Your task to perform on an android device: snooze an email in the gmail app Image 0: 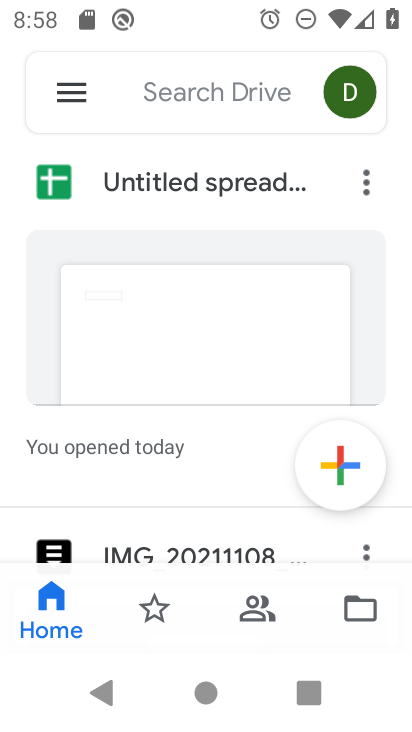
Step 0: press home button
Your task to perform on an android device: snooze an email in the gmail app Image 1: 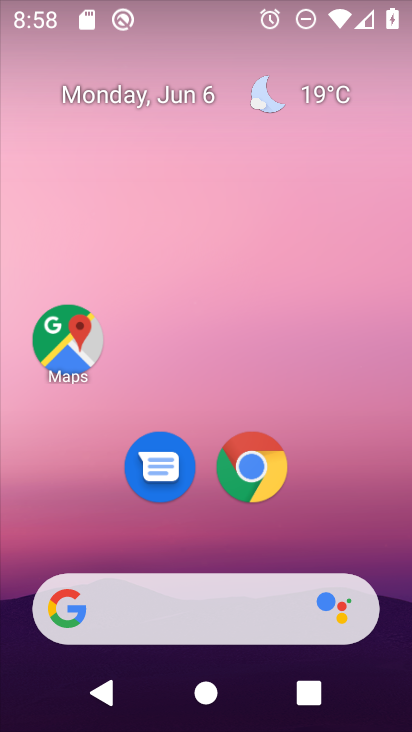
Step 1: drag from (374, 523) to (371, 137)
Your task to perform on an android device: snooze an email in the gmail app Image 2: 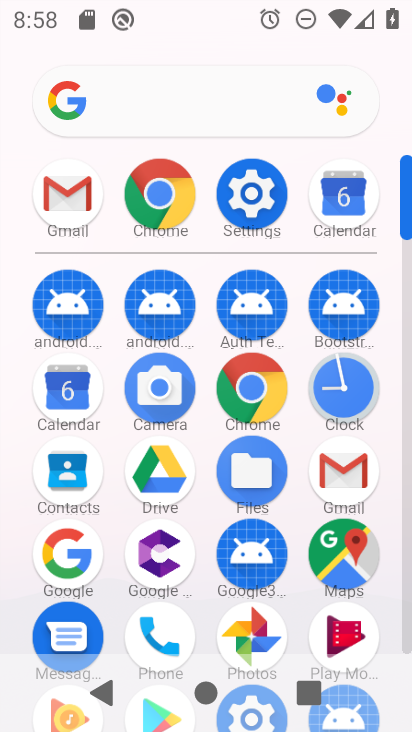
Step 2: click (356, 468)
Your task to perform on an android device: snooze an email in the gmail app Image 3: 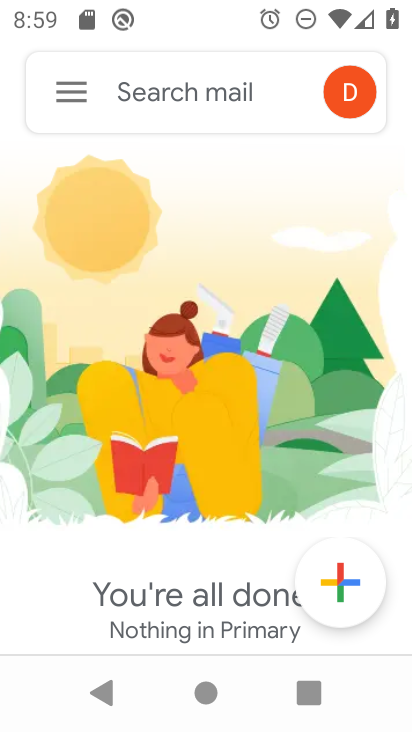
Step 3: click (76, 95)
Your task to perform on an android device: snooze an email in the gmail app Image 4: 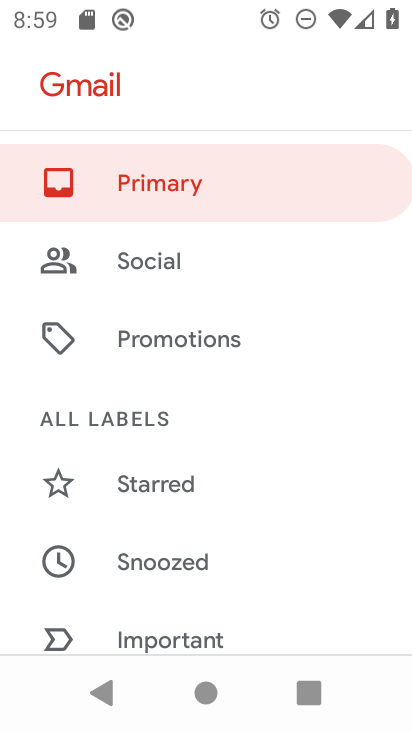
Step 4: drag from (344, 550) to (345, 368)
Your task to perform on an android device: snooze an email in the gmail app Image 5: 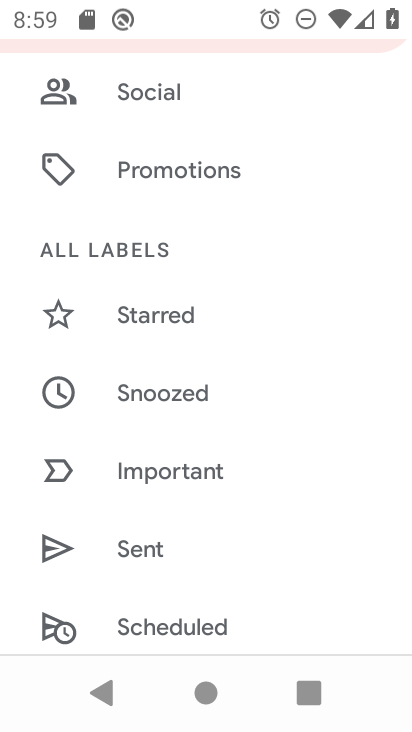
Step 5: drag from (340, 473) to (337, 321)
Your task to perform on an android device: snooze an email in the gmail app Image 6: 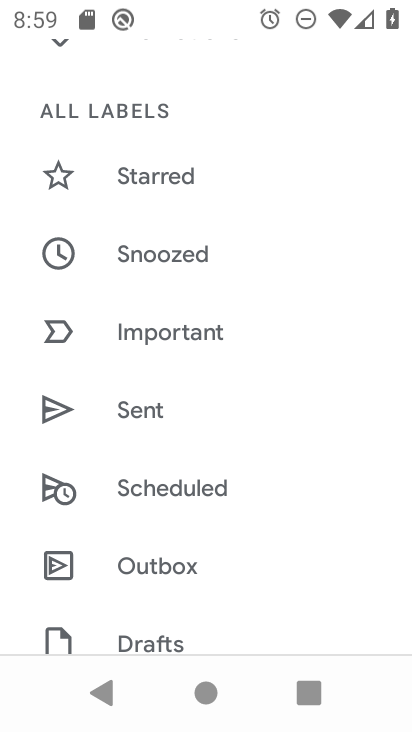
Step 6: drag from (343, 549) to (339, 334)
Your task to perform on an android device: snooze an email in the gmail app Image 7: 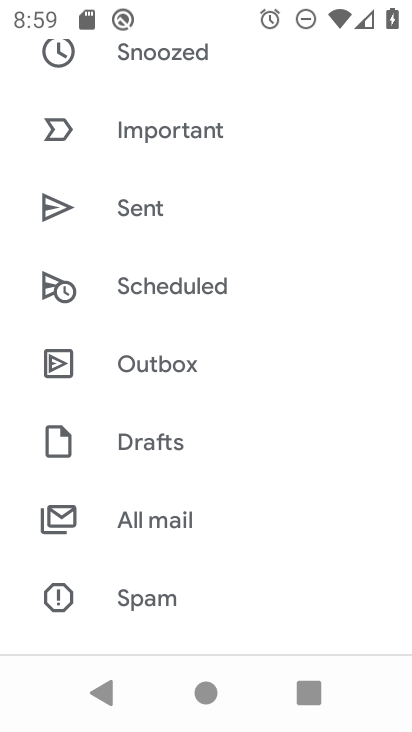
Step 7: drag from (312, 214) to (323, 396)
Your task to perform on an android device: snooze an email in the gmail app Image 8: 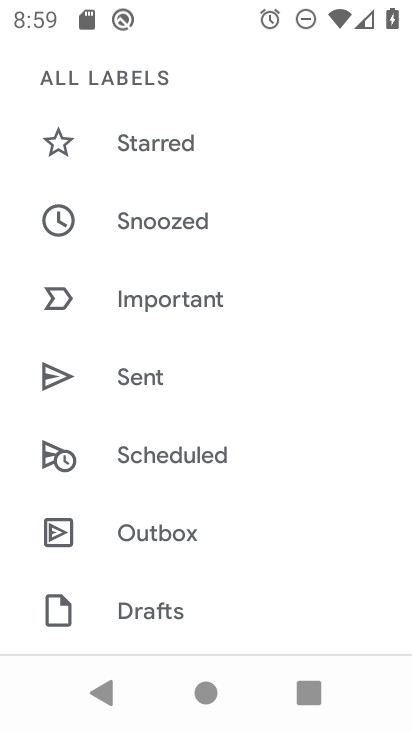
Step 8: drag from (311, 176) to (319, 349)
Your task to perform on an android device: snooze an email in the gmail app Image 9: 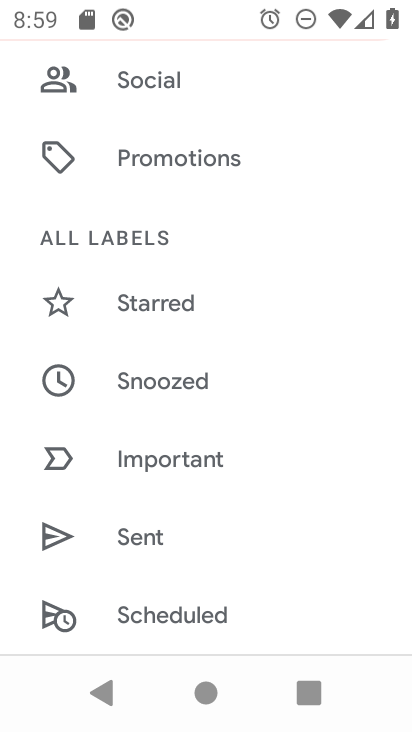
Step 9: drag from (309, 160) to (317, 362)
Your task to perform on an android device: snooze an email in the gmail app Image 10: 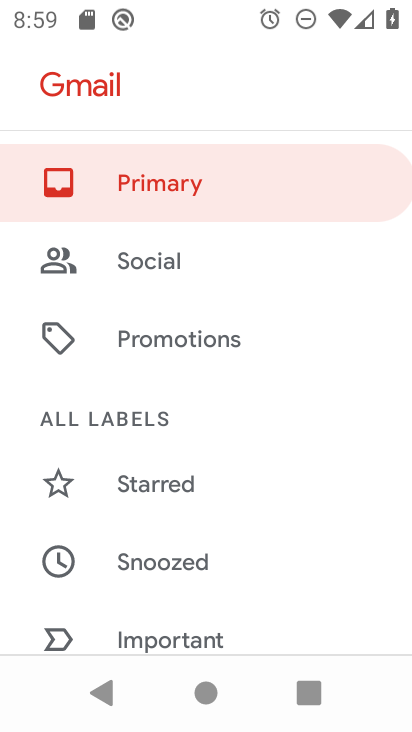
Step 10: click (188, 573)
Your task to perform on an android device: snooze an email in the gmail app Image 11: 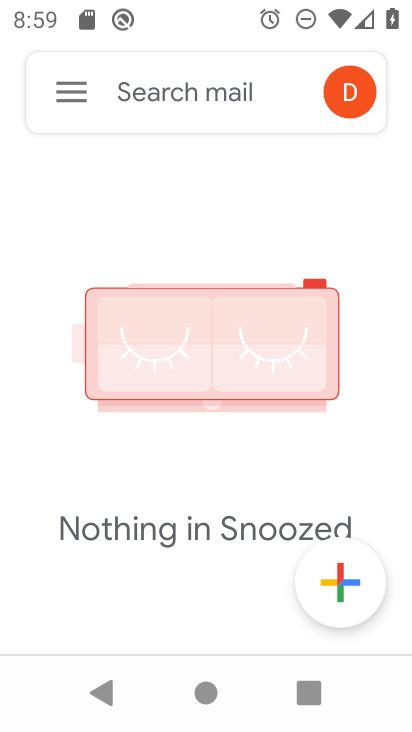
Step 11: task complete